Your task to perform on an android device: open chrome and create a bookmark for the current page Image 0: 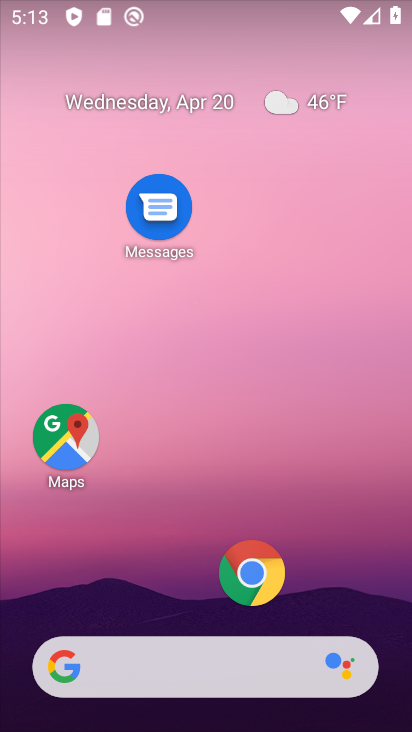
Step 0: click (237, 579)
Your task to perform on an android device: open chrome and create a bookmark for the current page Image 1: 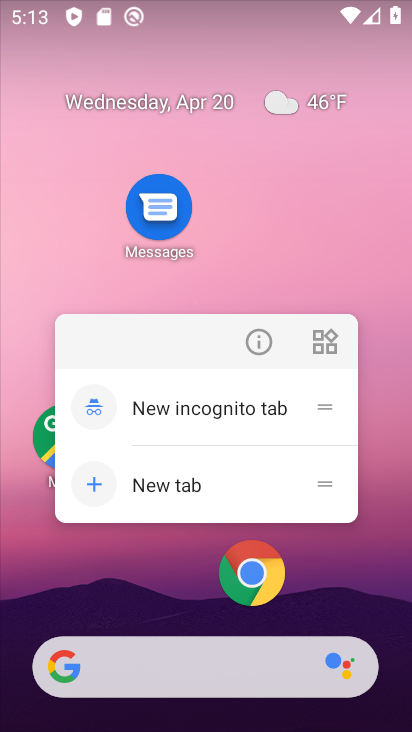
Step 1: click (268, 577)
Your task to perform on an android device: open chrome and create a bookmark for the current page Image 2: 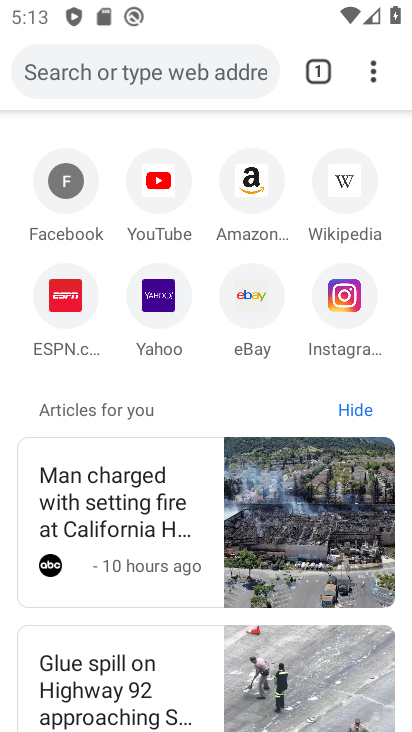
Step 2: click (168, 78)
Your task to perform on an android device: open chrome and create a bookmark for the current page Image 3: 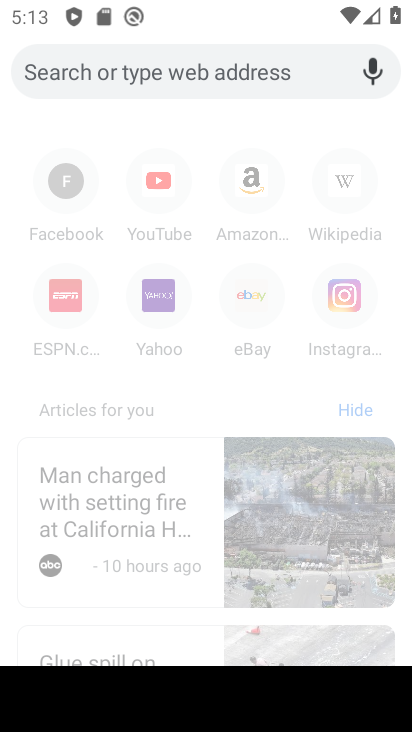
Step 3: click (187, 72)
Your task to perform on an android device: open chrome and create a bookmark for the current page Image 4: 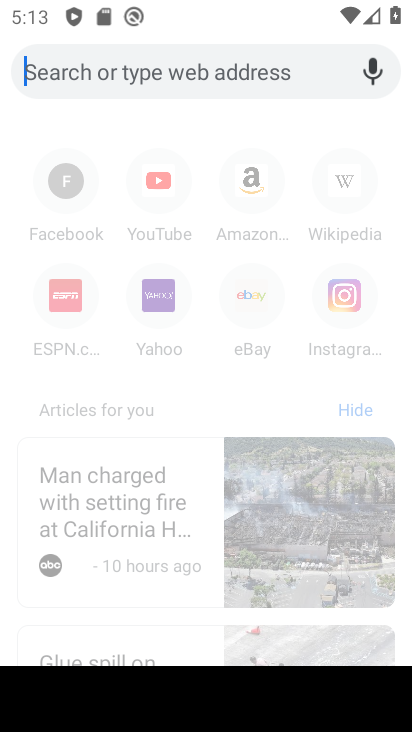
Step 4: type "fdgdf"
Your task to perform on an android device: open chrome and create a bookmark for the current page Image 5: 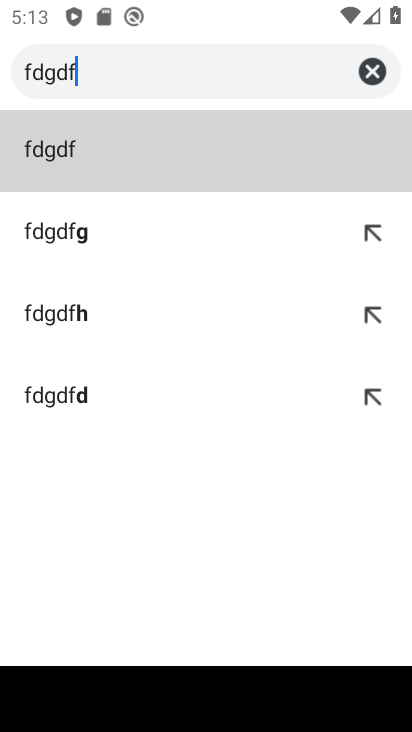
Step 5: click (129, 378)
Your task to perform on an android device: open chrome and create a bookmark for the current page Image 6: 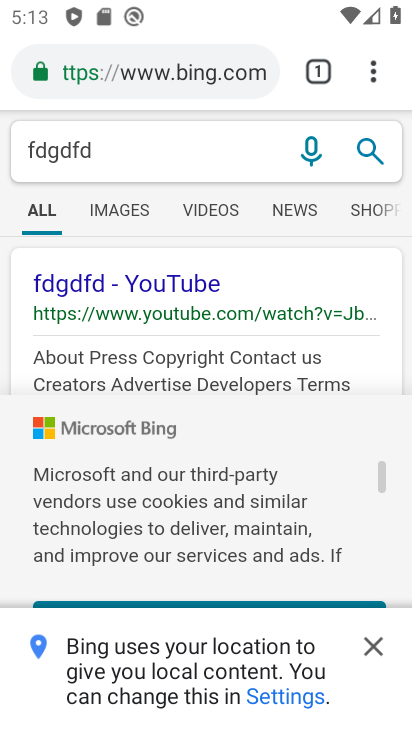
Step 6: click (129, 285)
Your task to perform on an android device: open chrome and create a bookmark for the current page Image 7: 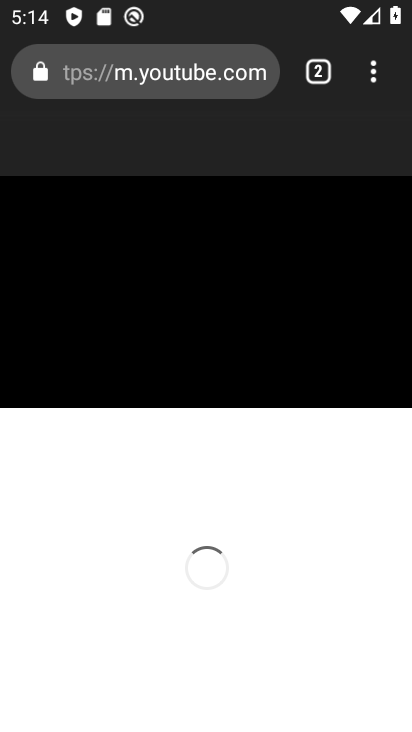
Step 7: click (372, 72)
Your task to perform on an android device: open chrome and create a bookmark for the current page Image 8: 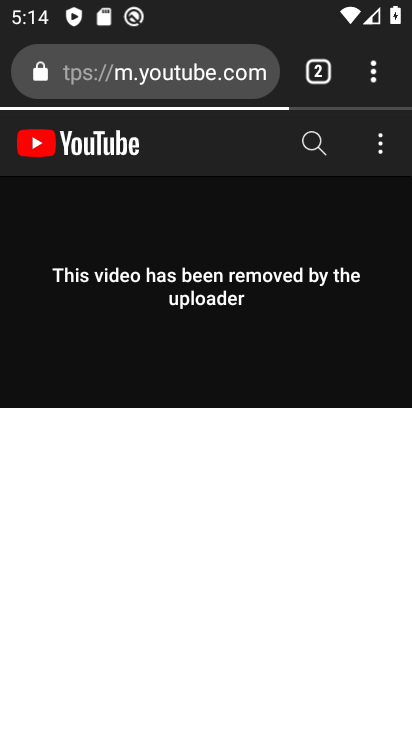
Step 8: click (157, 72)
Your task to perform on an android device: open chrome and create a bookmark for the current page Image 9: 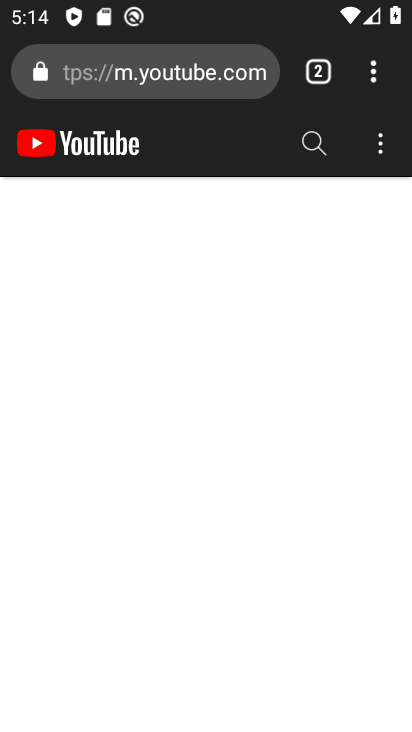
Step 9: task complete